Your task to perform on an android device: Go to notification settings Image 0: 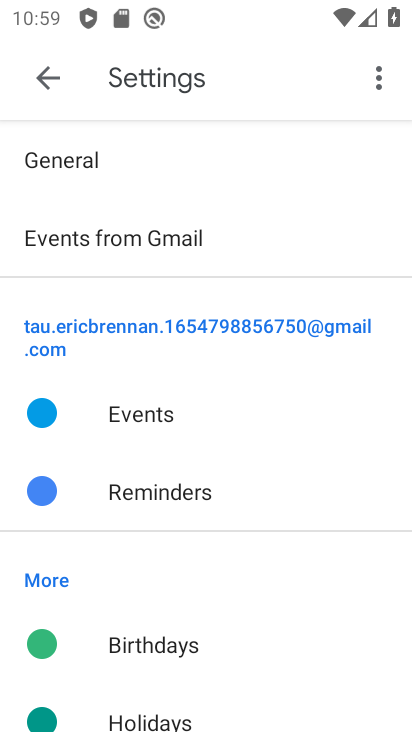
Step 0: press home button
Your task to perform on an android device: Go to notification settings Image 1: 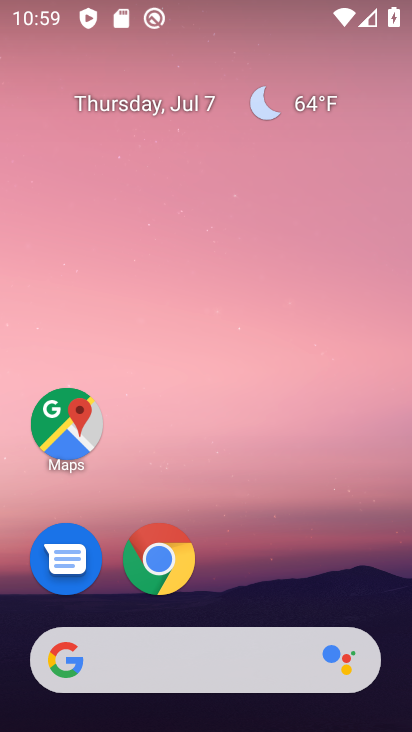
Step 1: drag from (175, 615) to (244, 167)
Your task to perform on an android device: Go to notification settings Image 2: 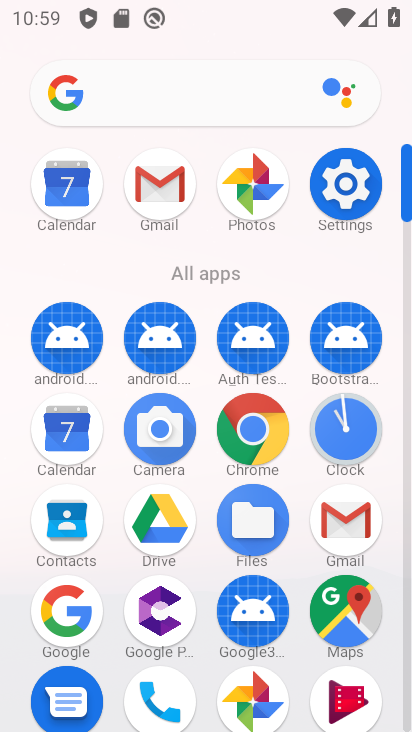
Step 2: click (334, 187)
Your task to perform on an android device: Go to notification settings Image 3: 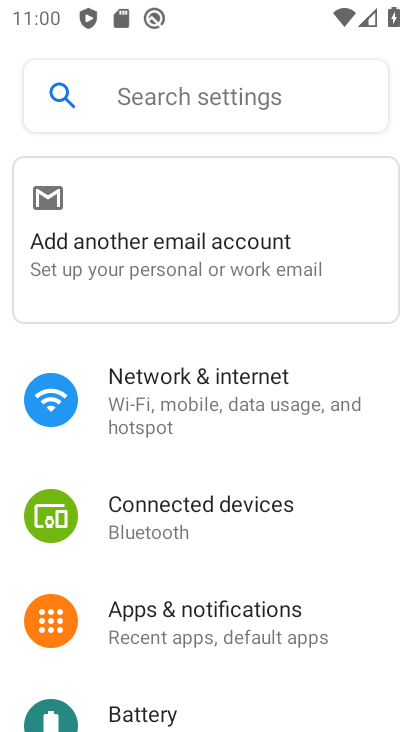
Step 3: click (125, 609)
Your task to perform on an android device: Go to notification settings Image 4: 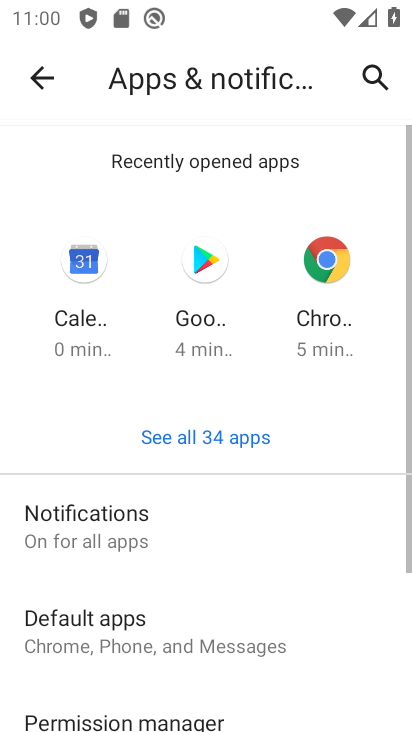
Step 4: task complete